Your task to perform on an android device: turn off picture-in-picture Image 0: 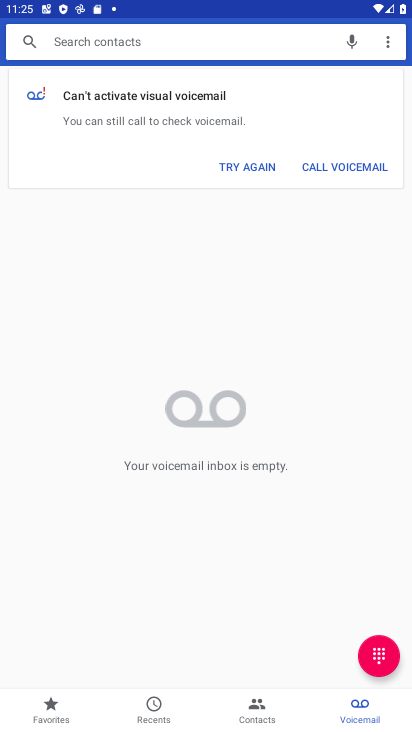
Step 0: press home button
Your task to perform on an android device: turn off picture-in-picture Image 1: 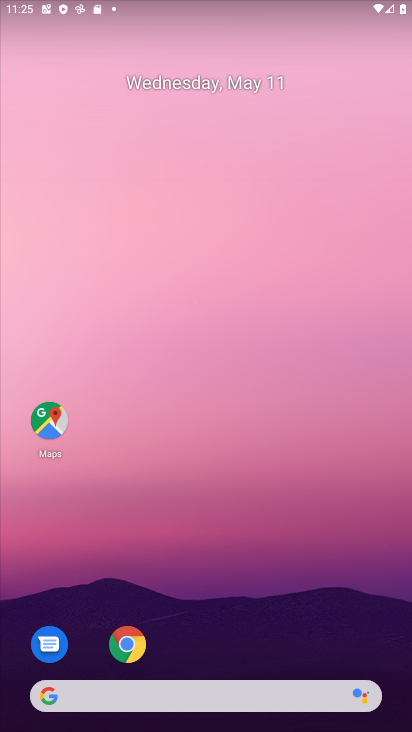
Step 1: drag from (256, 560) to (180, 32)
Your task to perform on an android device: turn off picture-in-picture Image 2: 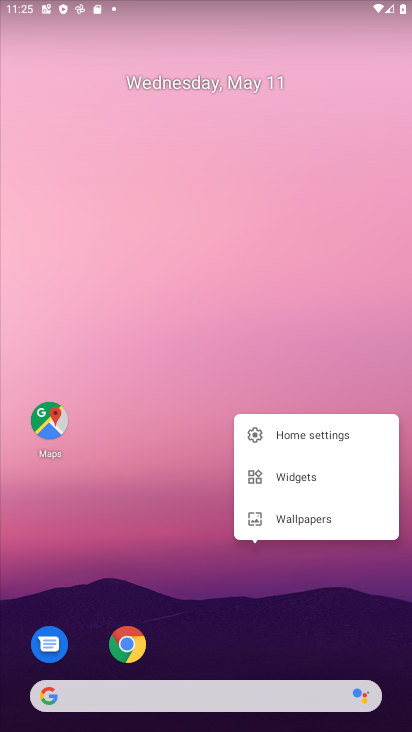
Step 2: click (136, 552)
Your task to perform on an android device: turn off picture-in-picture Image 3: 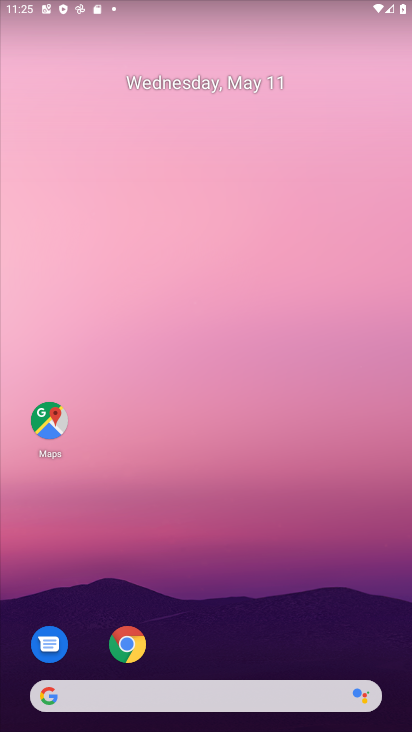
Step 3: drag from (293, 640) to (233, 32)
Your task to perform on an android device: turn off picture-in-picture Image 4: 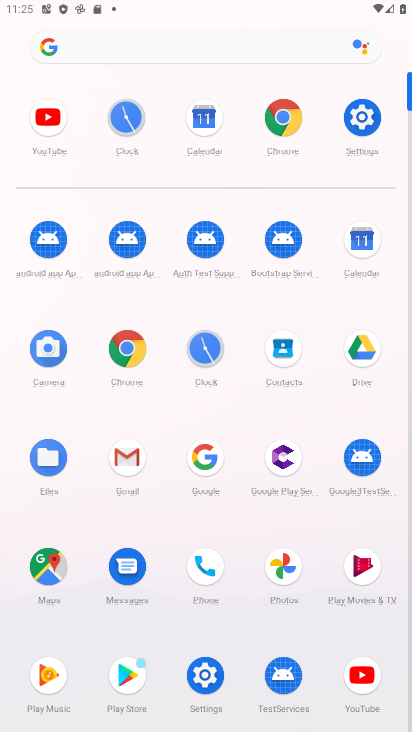
Step 4: click (346, 120)
Your task to perform on an android device: turn off picture-in-picture Image 5: 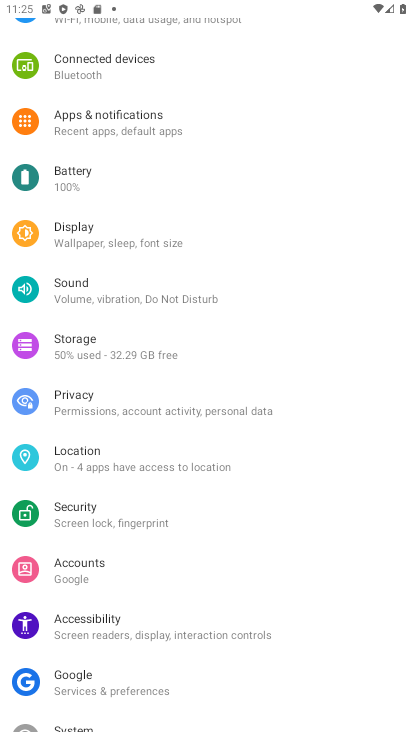
Step 5: click (193, 128)
Your task to perform on an android device: turn off picture-in-picture Image 6: 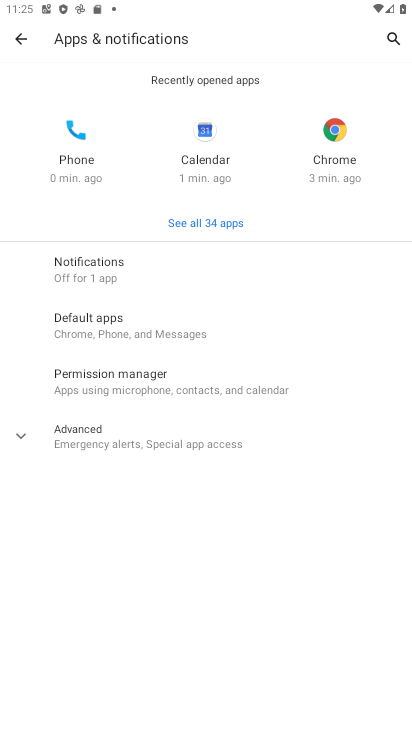
Step 6: click (190, 425)
Your task to perform on an android device: turn off picture-in-picture Image 7: 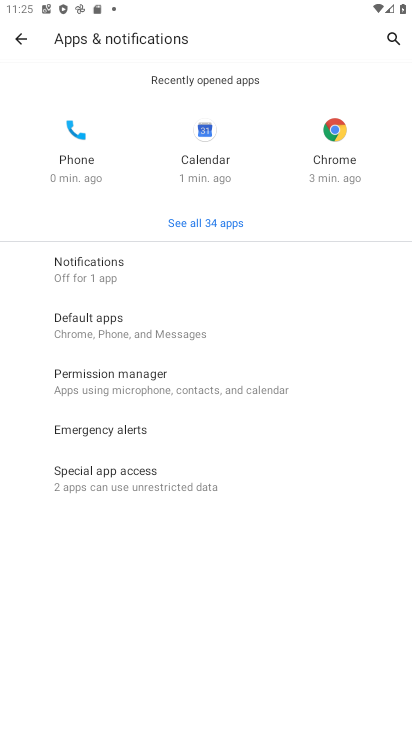
Step 7: click (199, 472)
Your task to perform on an android device: turn off picture-in-picture Image 8: 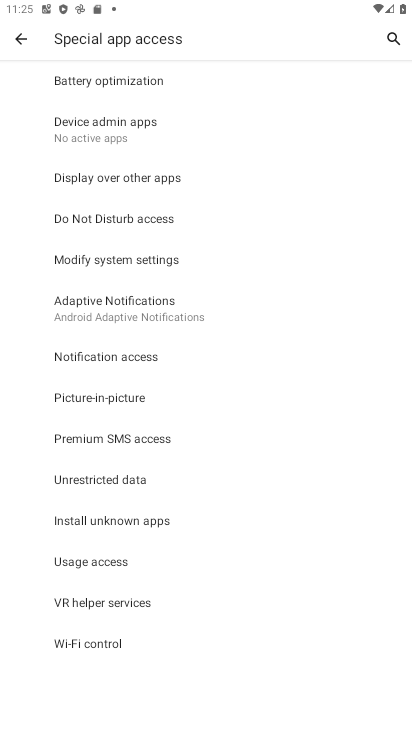
Step 8: click (156, 394)
Your task to perform on an android device: turn off picture-in-picture Image 9: 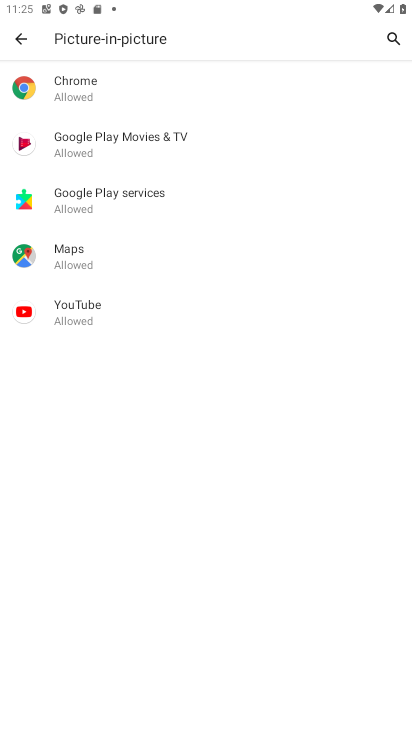
Step 9: click (137, 79)
Your task to perform on an android device: turn off picture-in-picture Image 10: 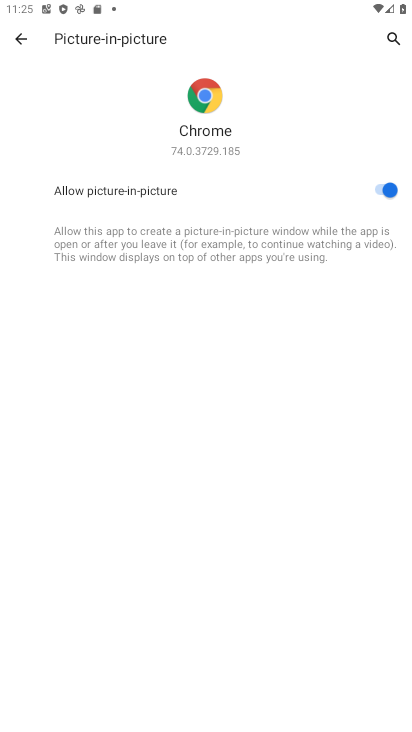
Step 10: click (322, 177)
Your task to perform on an android device: turn off picture-in-picture Image 11: 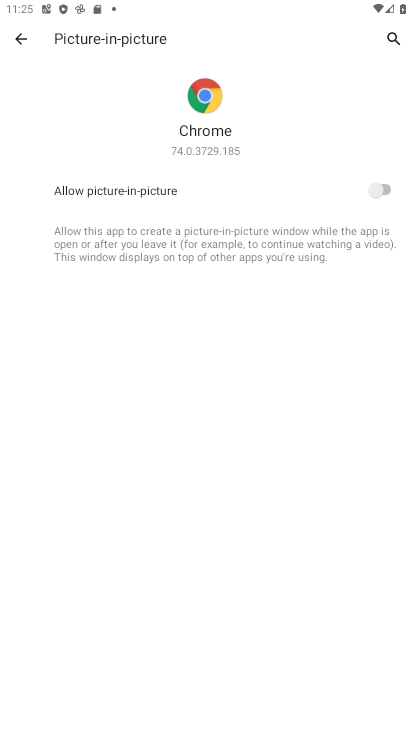
Step 11: task complete